Your task to perform on an android device: delete a single message in the gmail app Image 0: 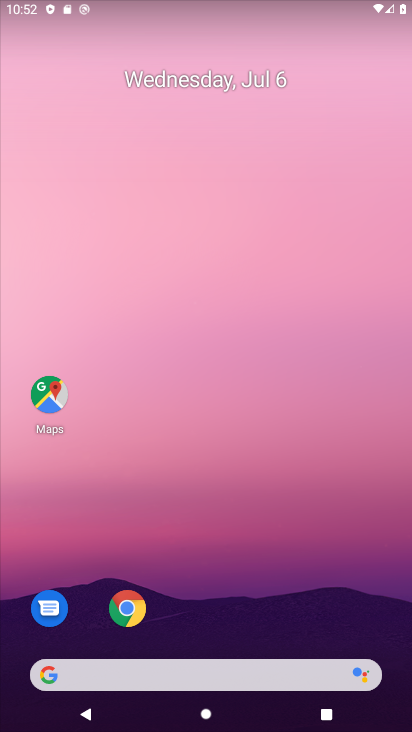
Step 0: drag from (207, 615) to (130, 12)
Your task to perform on an android device: delete a single message in the gmail app Image 1: 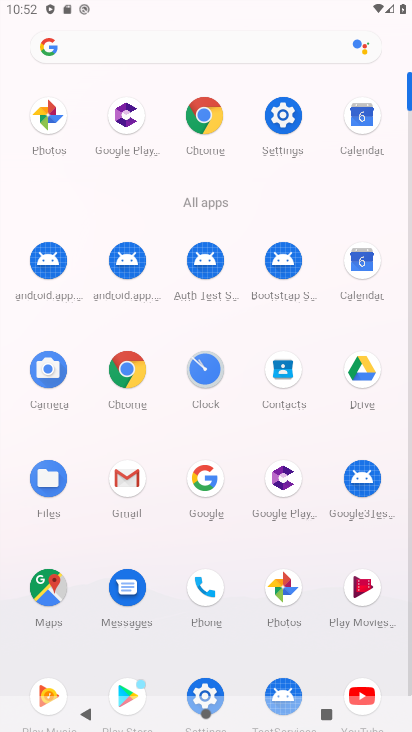
Step 1: click (129, 489)
Your task to perform on an android device: delete a single message in the gmail app Image 2: 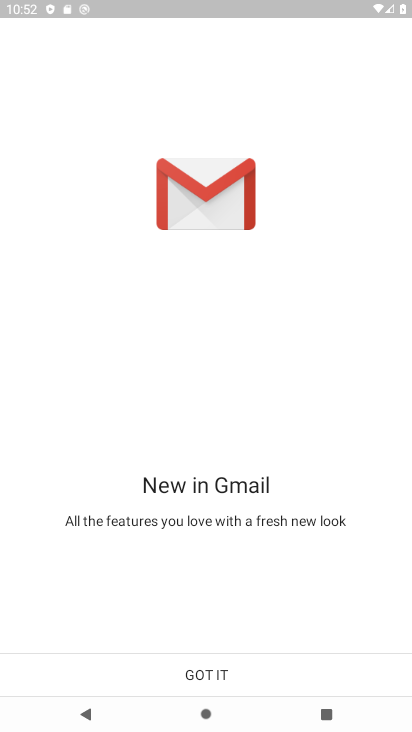
Step 2: click (224, 679)
Your task to perform on an android device: delete a single message in the gmail app Image 3: 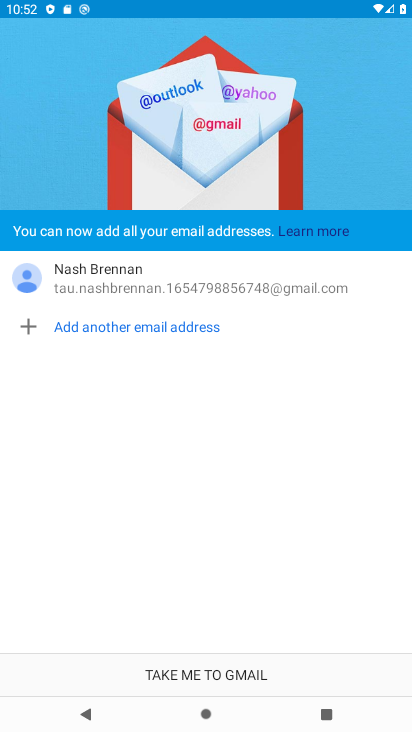
Step 3: click (224, 679)
Your task to perform on an android device: delete a single message in the gmail app Image 4: 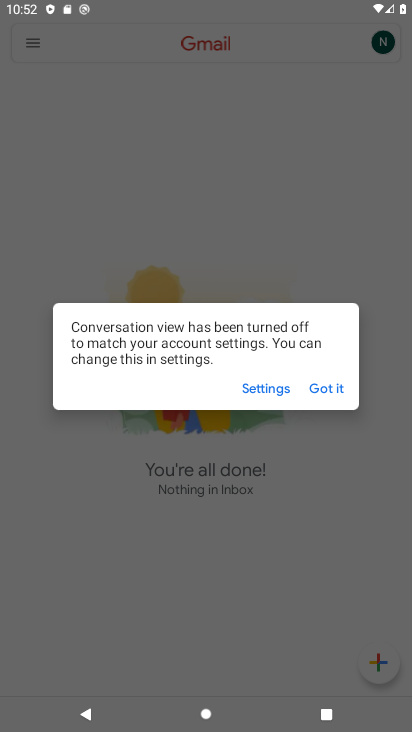
Step 4: click (331, 388)
Your task to perform on an android device: delete a single message in the gmail app Image 5: 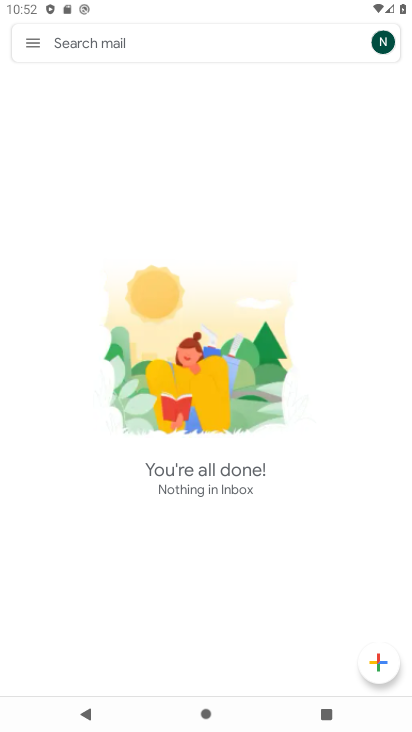
Step 5: task complete